Your task to perform on an android device: Open internet settings Image 0: 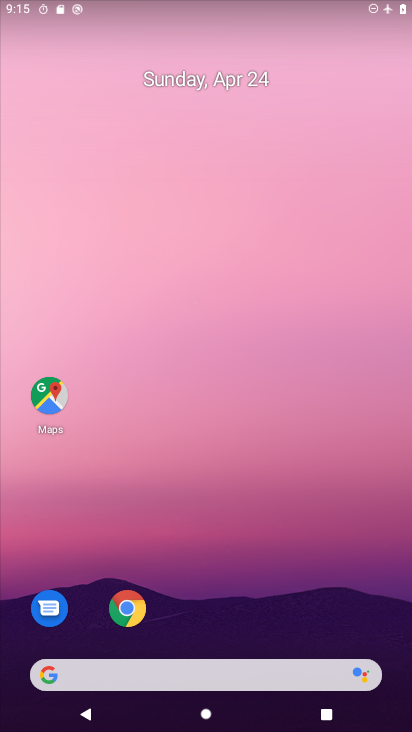
Step 0: drag from (314, 612) to (337, 29)
Your task to perform on an android device: Open internet settings Image 1: 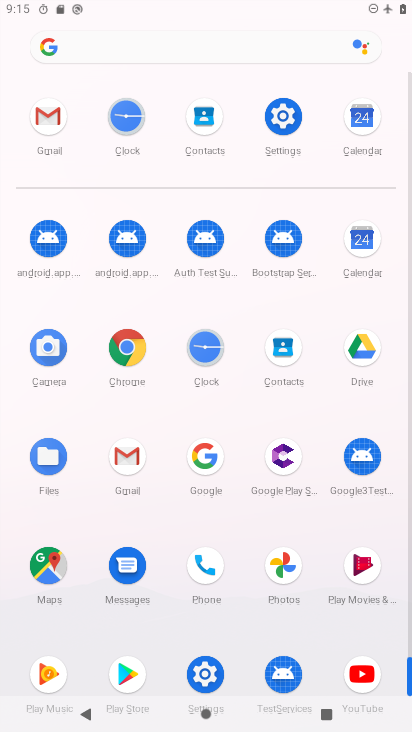
Step 1: click (281, 110)
Your task to perform on an android device: Open internet settings Image 2: 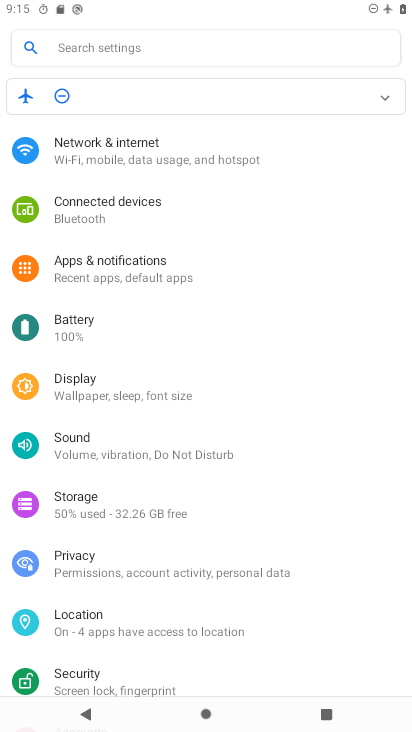
Step 2: click (218, 144)
Your task to perform on an android device: Open internet settings Image 3: 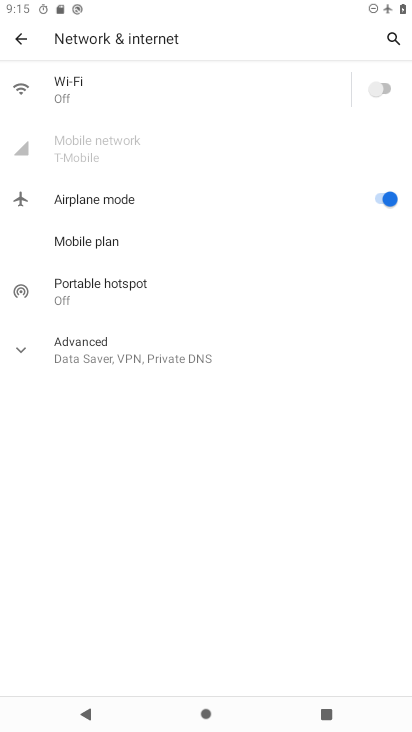
Step 3: task complete